Your task to perform on an android device: What's on the menu at In-N-Out? Image 0: 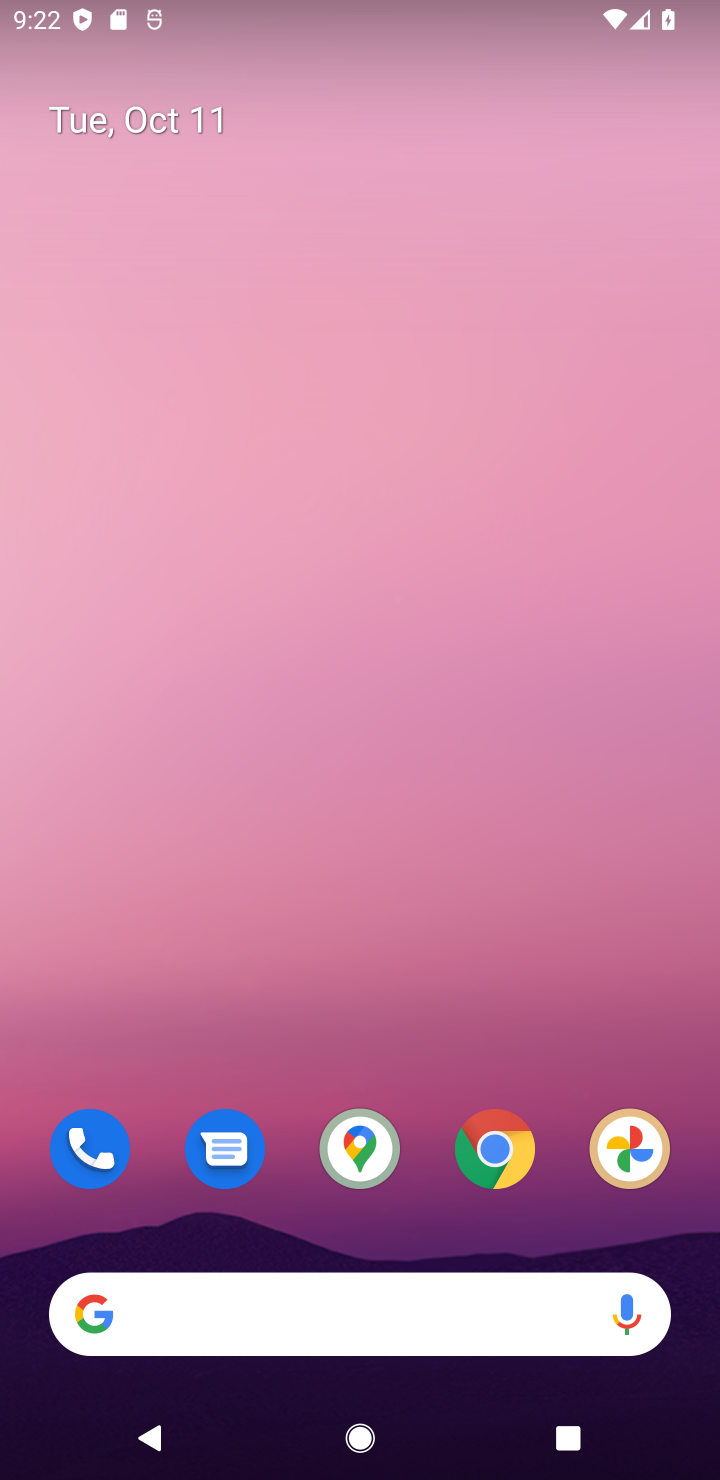
Step 0: click (402, 1293)
Your task to perform on an android device: What's on the menu at In-N-Out? Image 1: 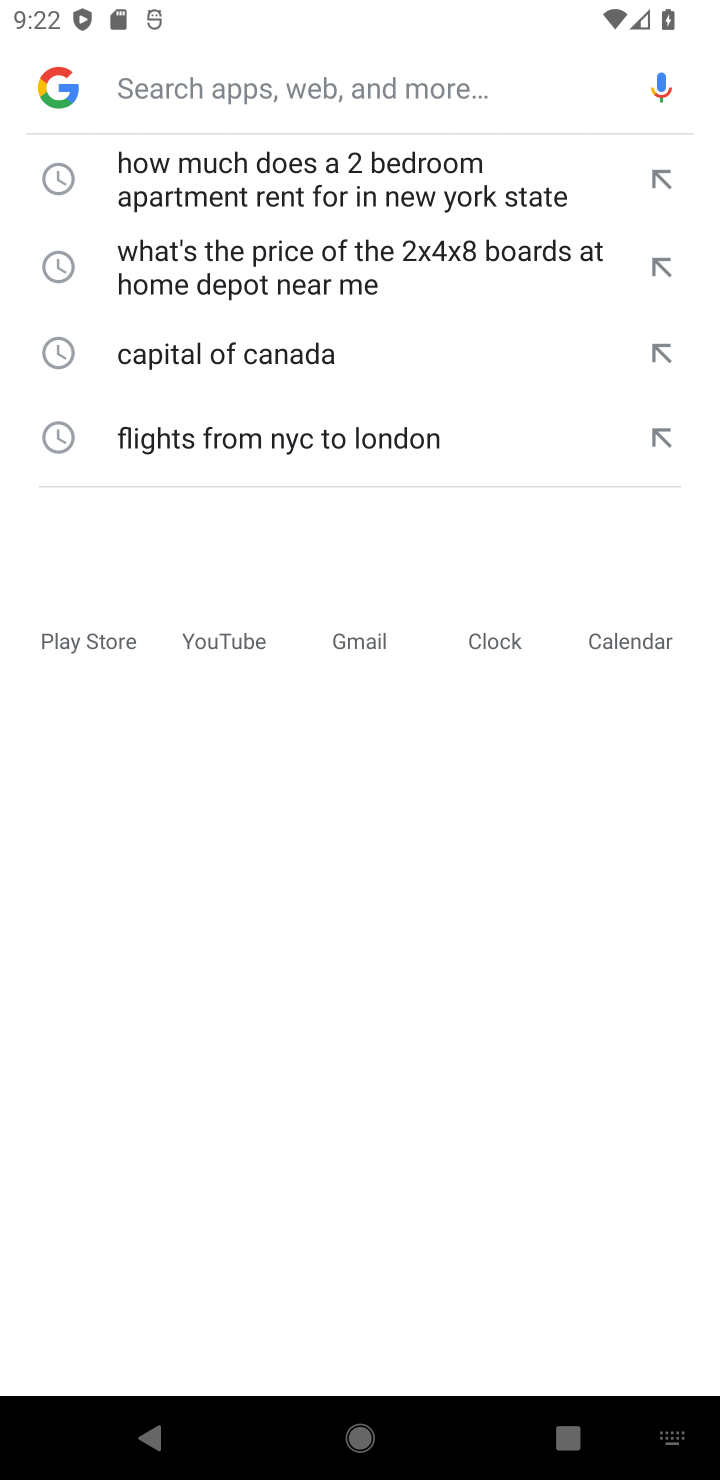
Step 1: type "What's on the menu at In-N-Out?"
Your task to perform on an android device: What's on the menu at In-N-Out? Image 2: 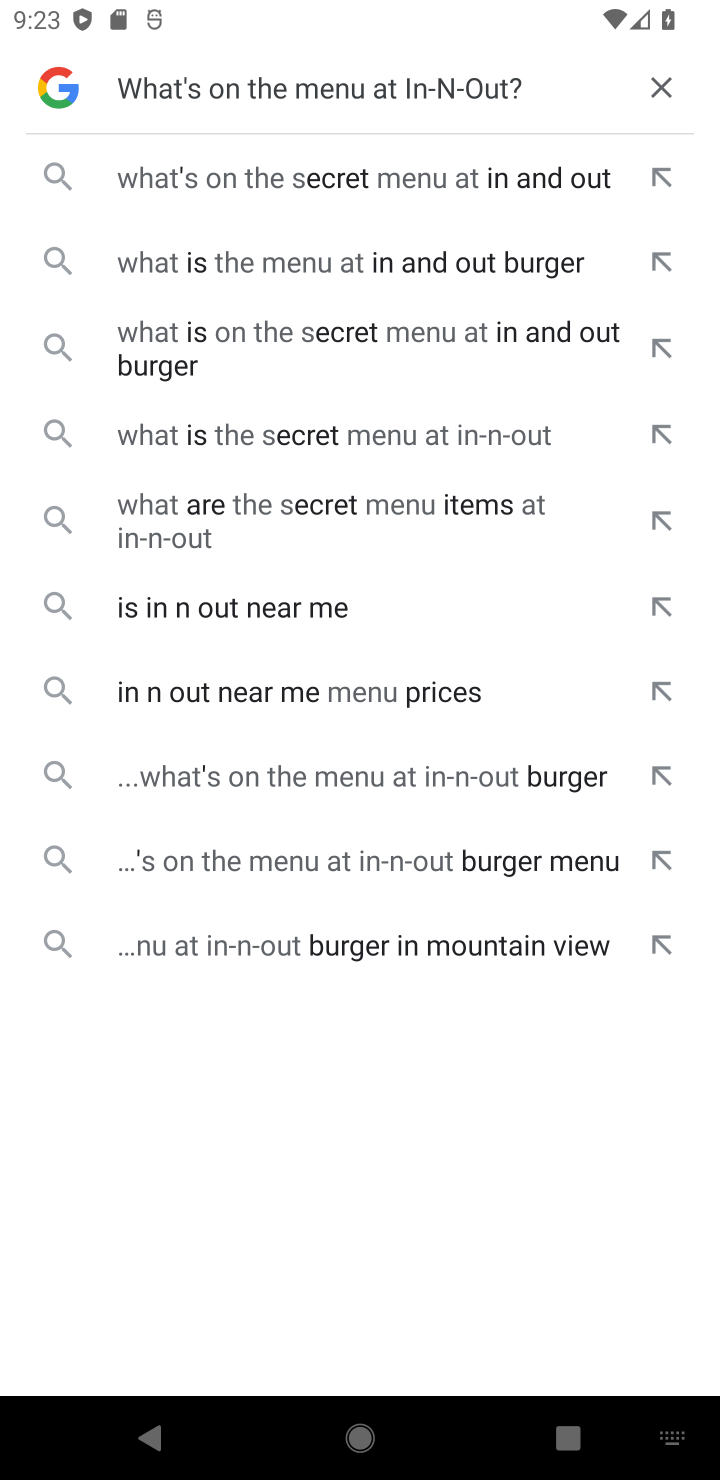
Step 2: click (403, 179)
Your task to perform on an android device: What's on the menu at In-N-Out? Image 3: 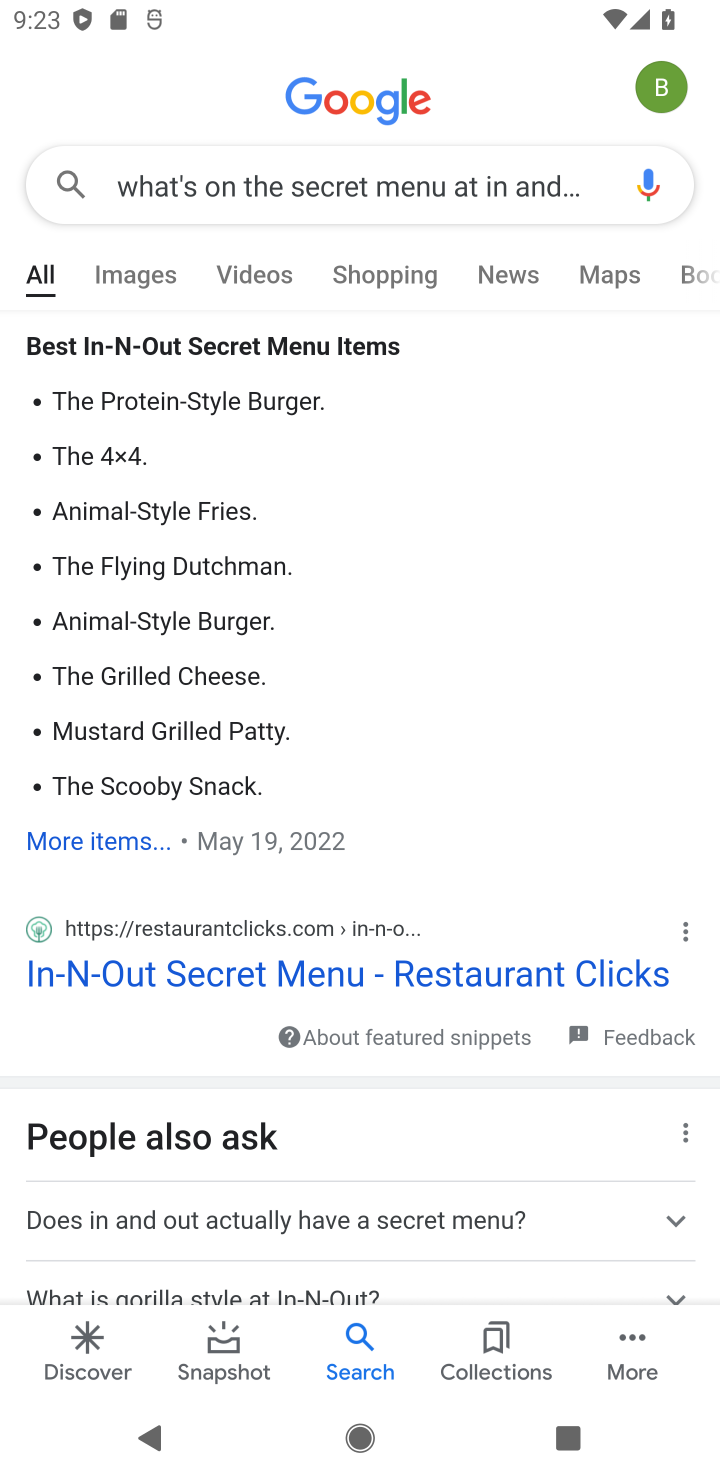
Step 3: drag from (387, 492) to (355, 110)
Your task to perform on an android device: What's on the menu at In-N-Out? Image 4: 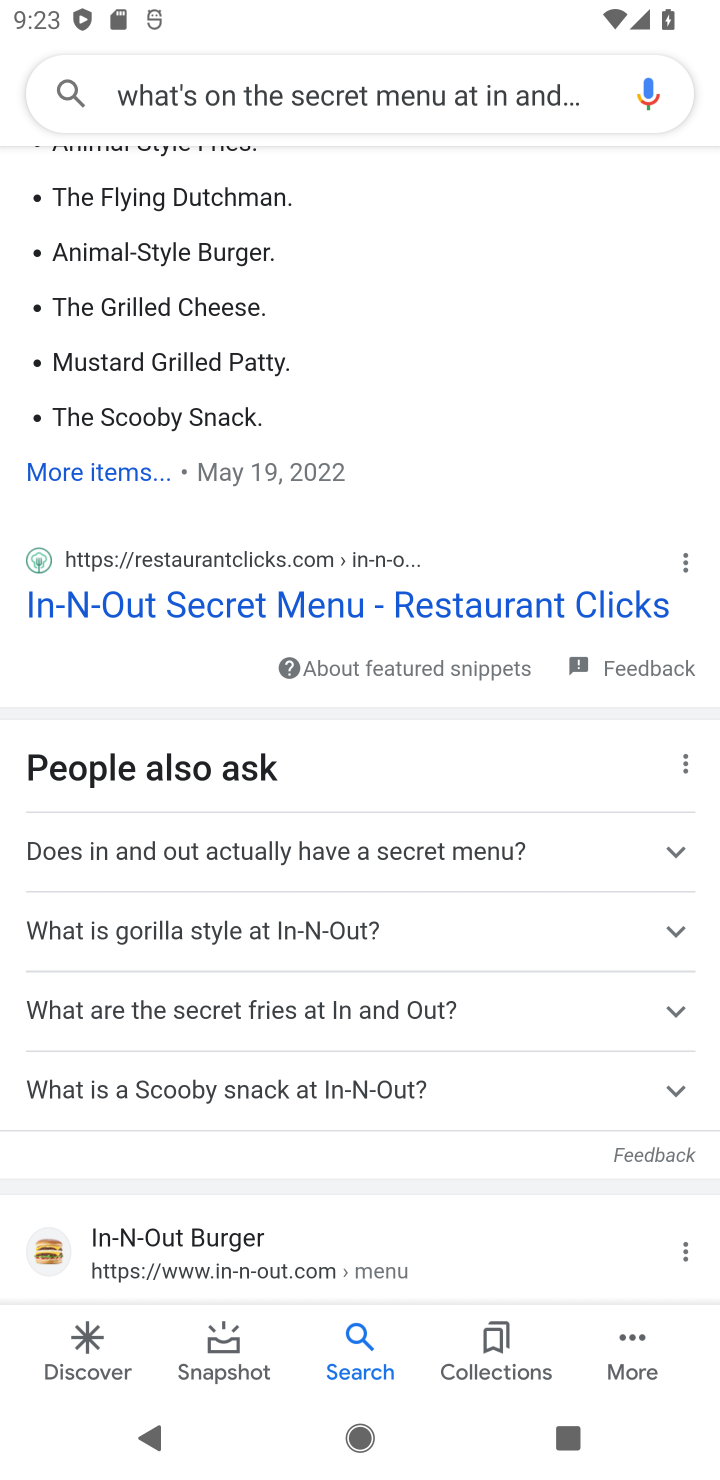
Step 4: drag from (421, 790) to (429, 466)
Your task to perform on an android device: What's on the menu at In-N-Out? Image 5: 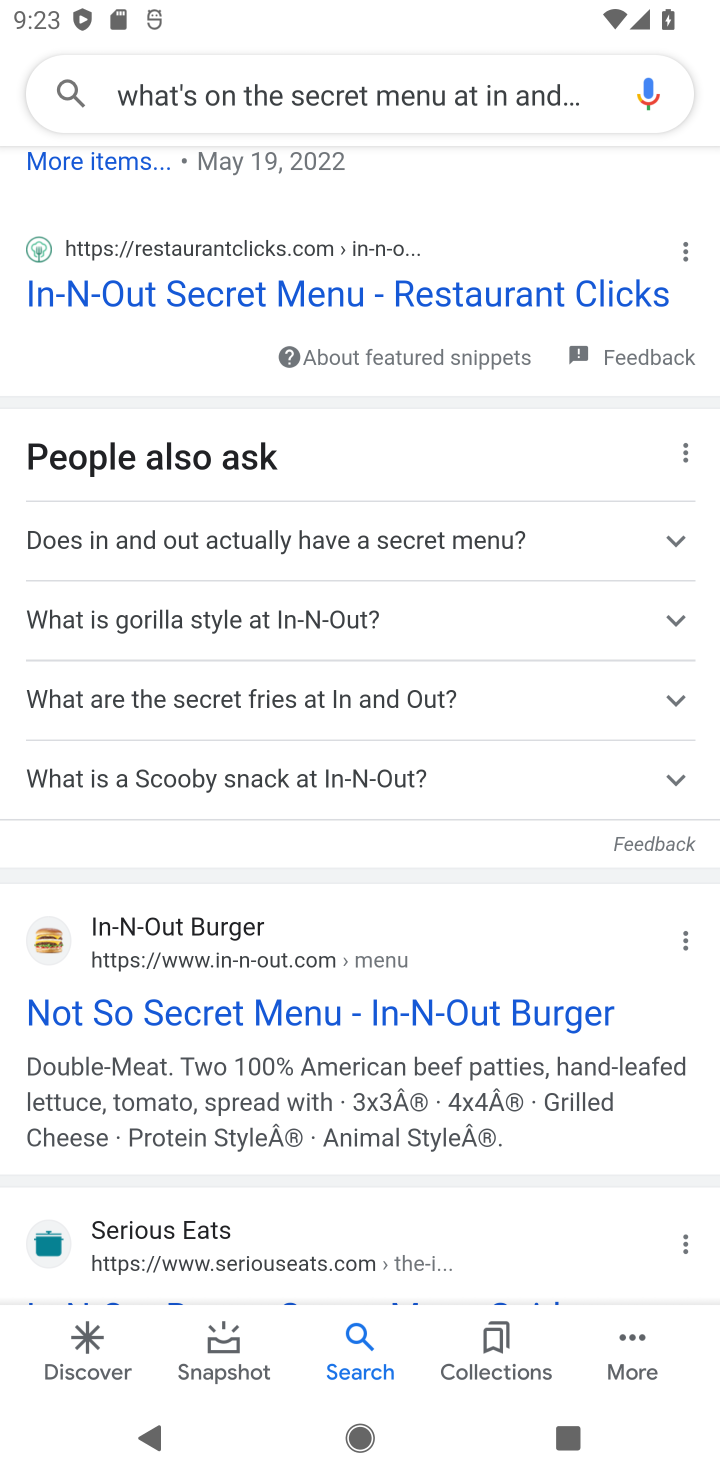
Step 5: click (376, 1176)
Your task to perform on an android device: What's on the menu at In-N-Out? Image 6: 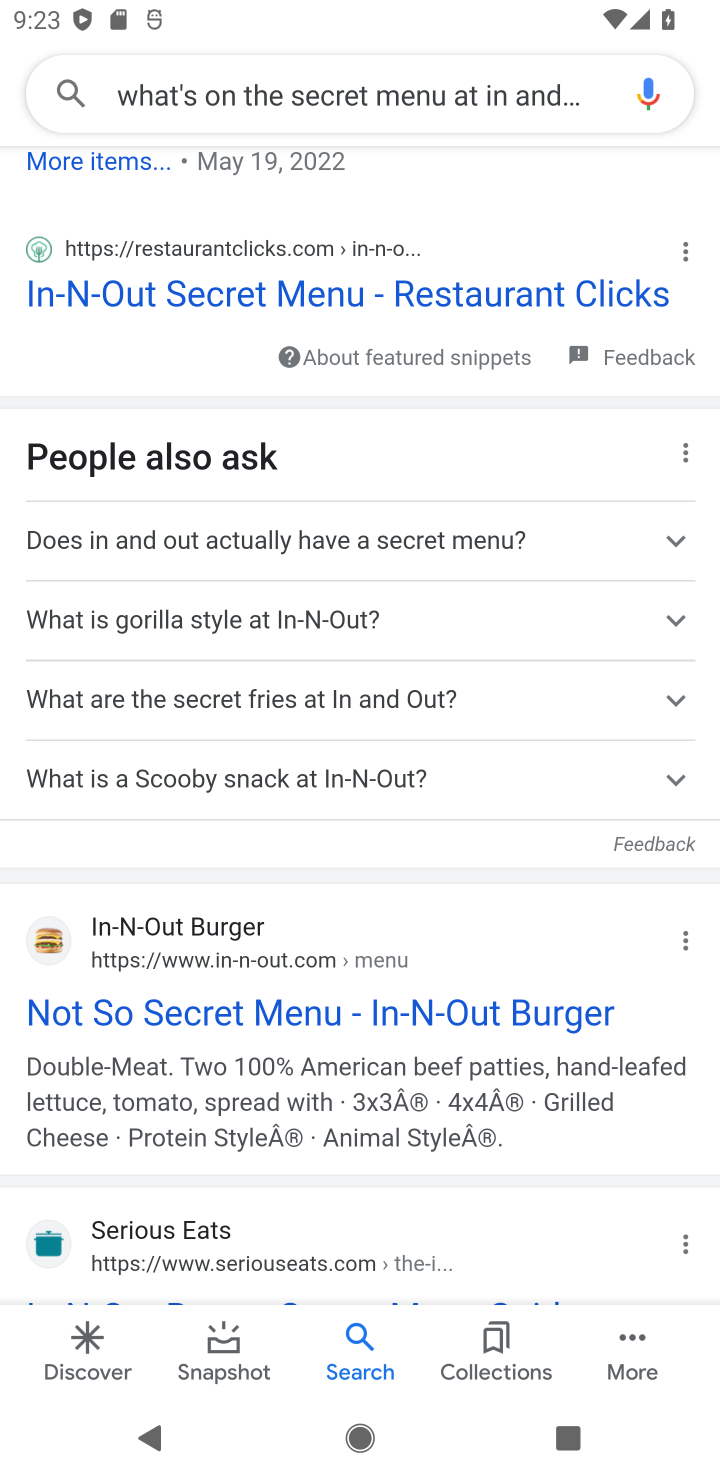
Step 6: task complete